Your task to perform on an android device: Open notification settings Image 0: 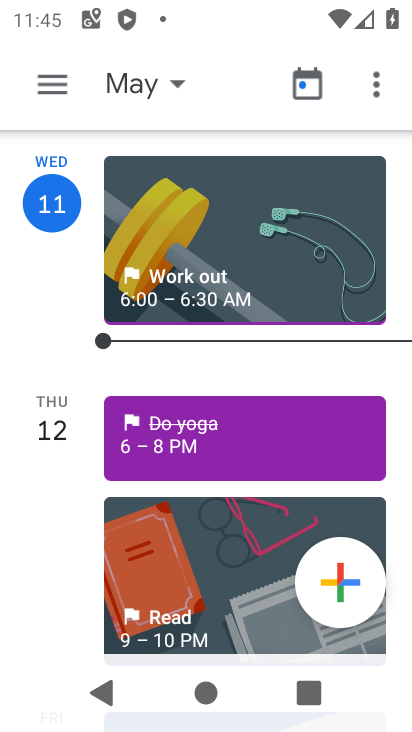
Step 0: press home button
Your task to perform on an android device: Open notification settings Image 1: 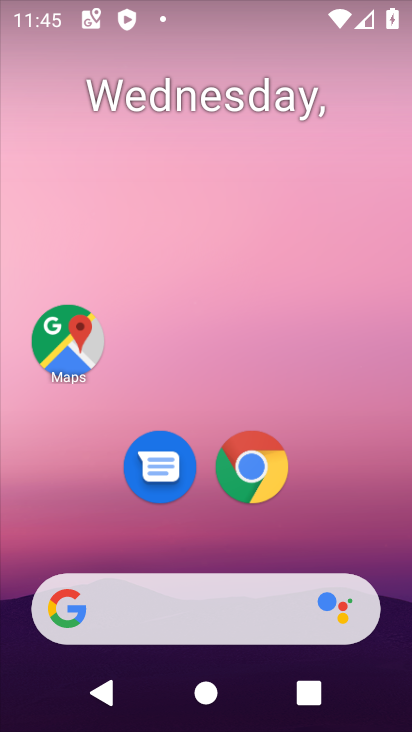
Step 1: drag from (195, 615) to (323, 13)
Your task to perform on an android device: Open notification settings Image 2: 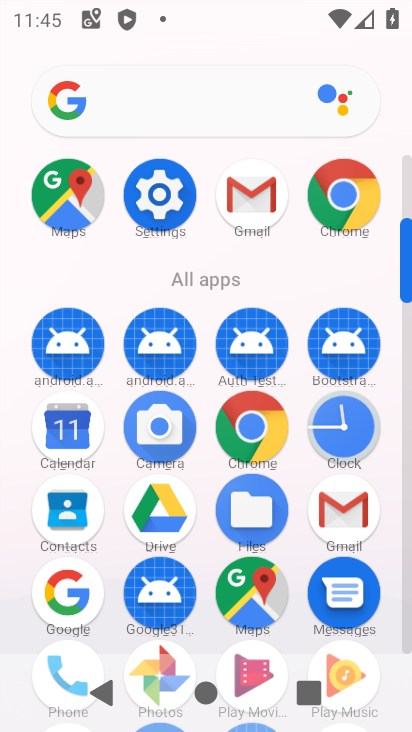
Step 2: click (157, 189)
Your task to perform on an android device: Open notification settings Image 3: 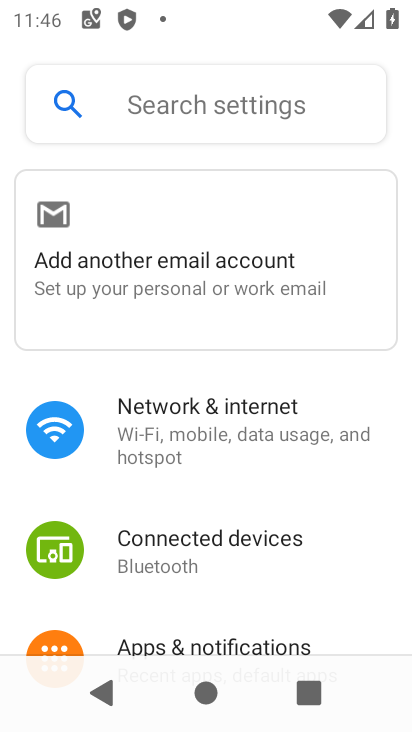
Step 3: drag from (189, 589) to (304, 295)
Your task to perform on an android device: Open notification settings Image 4: 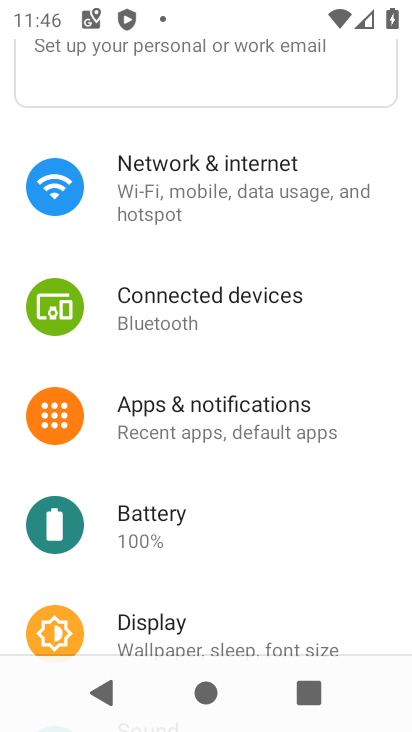
Step 4: click (219, 415)
Your task to perform on an android device: Open notification settings Image 5: 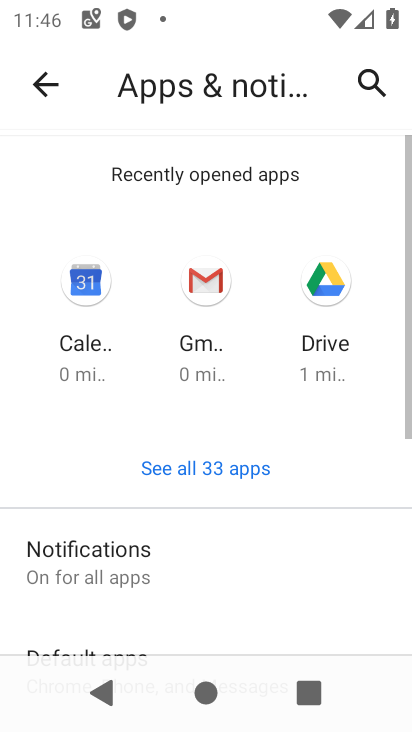
Step 5: click (124, 558)
Your task to perform on an android device: Open notification settings Image 6: 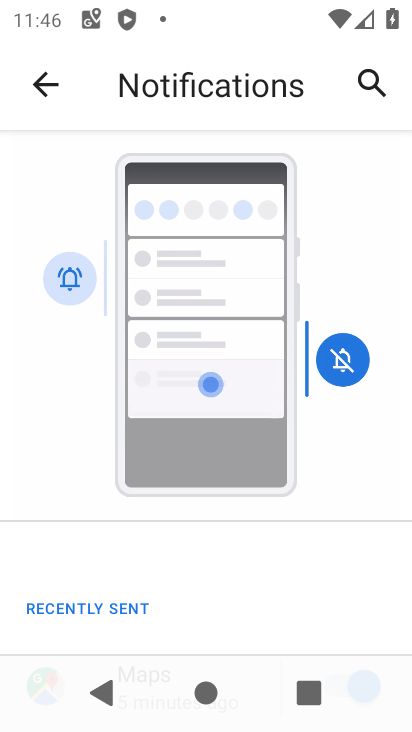
Step 6: task complete